Your task to perform on an android device: Go to location settings Image 0: 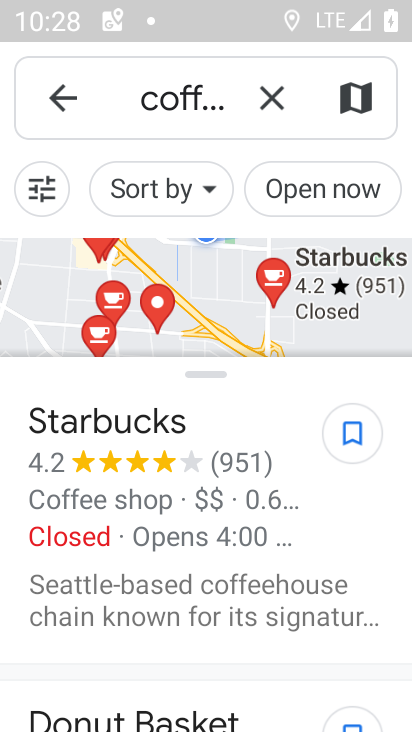
Step 0: press home button
Your task to perform on an android device: Go to location settings Image 1: 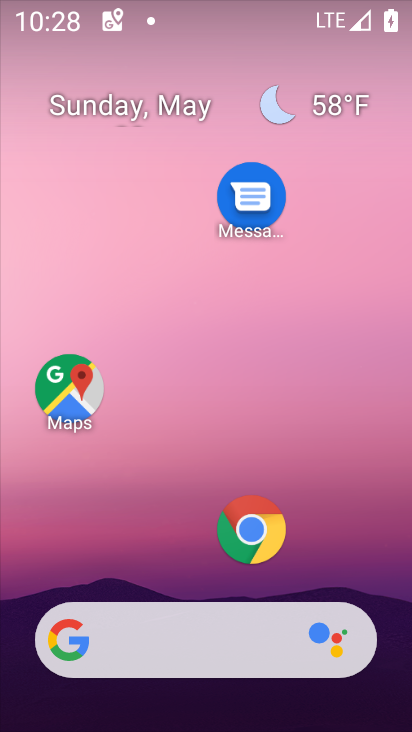
Step 1: drag from (159, 586) to (216, 64)
Your task to perform on an android device: Go to location settings Image 2: 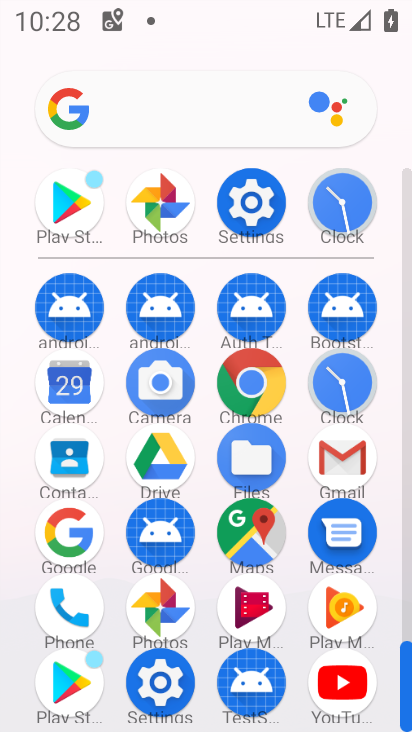
Step 2: click (263, 216)
Your task to perform on an android device: Go to location settings Image 3: 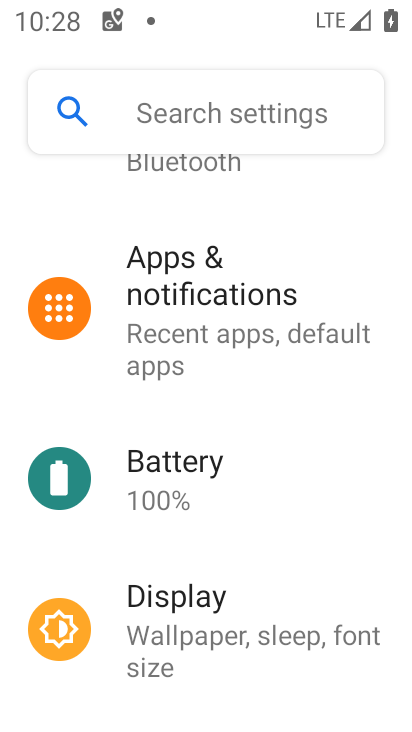
Step 3: drag from (236, 552) to (293, 229)
Your task to perform on an android device: Go to location settings Image 4: 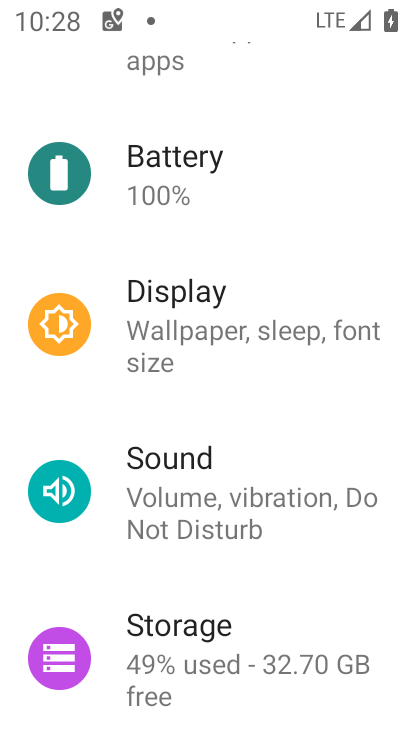
Step 4: drag from (266, 610) to (307, 77)
Your task to perform on an android device: Go to location settings Image 5: 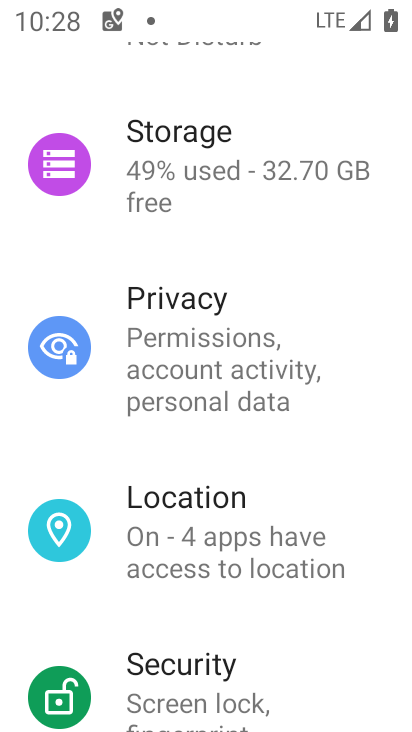
Step 5: click (234, 522)
Your task to perform on an android device: Go to location settings Image 6: 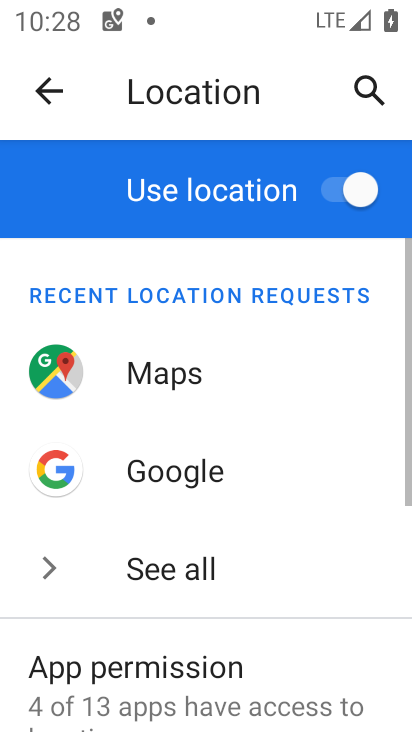
Step 6: task complete